Your task to perform on an android device: change keyboard looks Image 0: 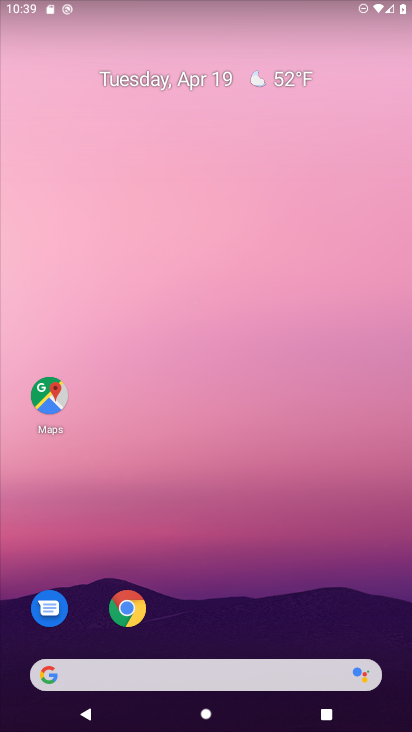
Step 0: drag from (330, 593) to (280, 136)
Your task to perform on an android device: change keyboard looks Image 1: 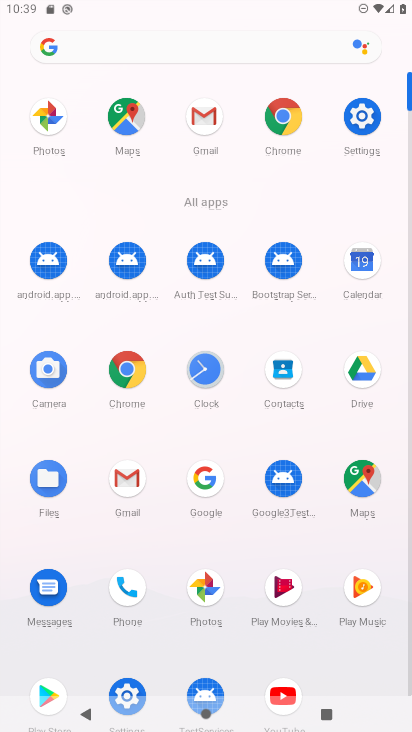
Step 1: click (360, 116)
Your task to perform on an android device: change keyboard looks Image 2: 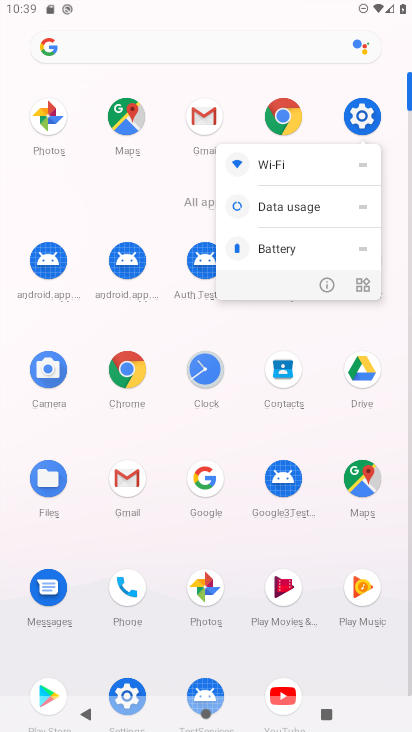
Step 2: click (362, 118)
Your task to perform on an android device: change keyboard looks Image 3: 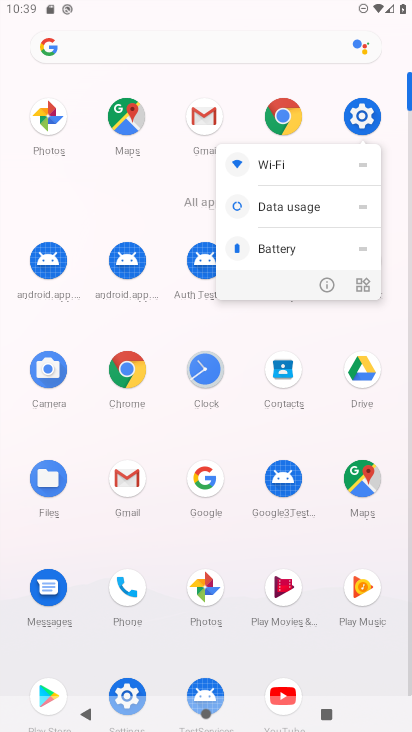
Step 3: click (362, 118)
Your task to perform on an android device: change keyboard looks Image 4: 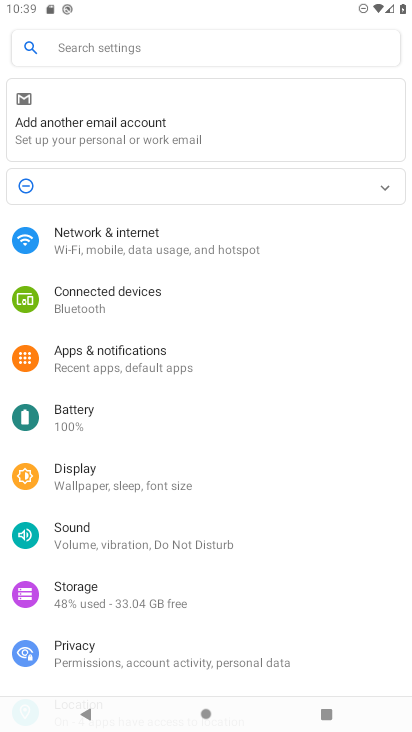
Step 4: drag from (319, 624) to (268, 272)
Your task to perform on an android device: change keyboard looks Image 5: 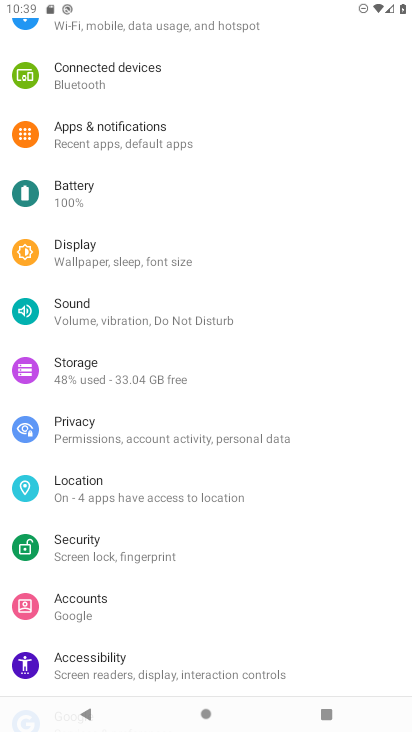
Step 5: drag from (325, 524) to (321, 181)
Your task to perform on an android device: change keyboard looks Image 6: 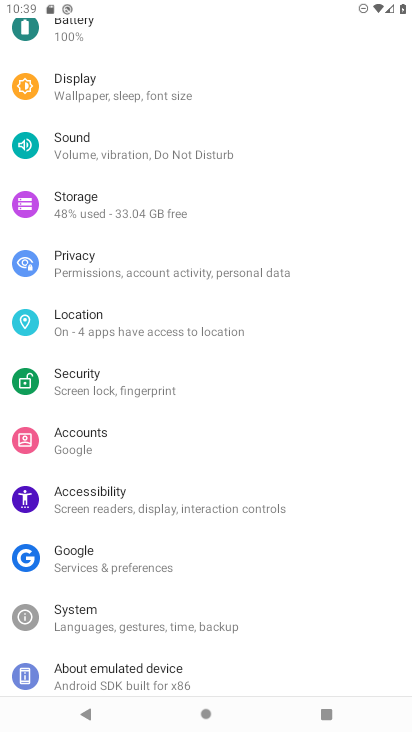
Step 6: click (197, 610)
Your task to perform on an android device: change keyboard looks Image 7: 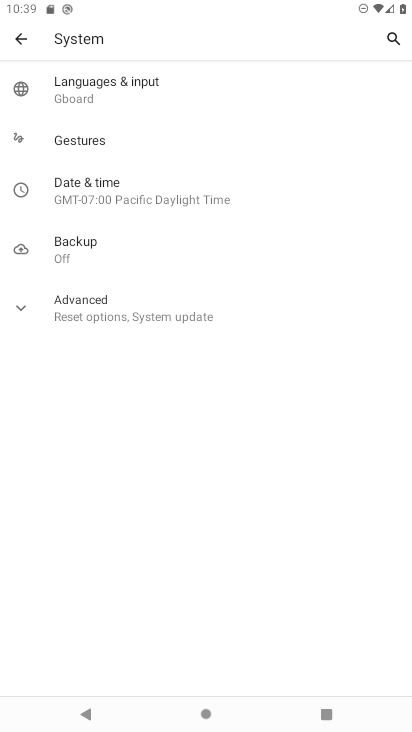
Step 7: click (79, 91)
Your task to perform on an android device: change keyboard looks Image 8: 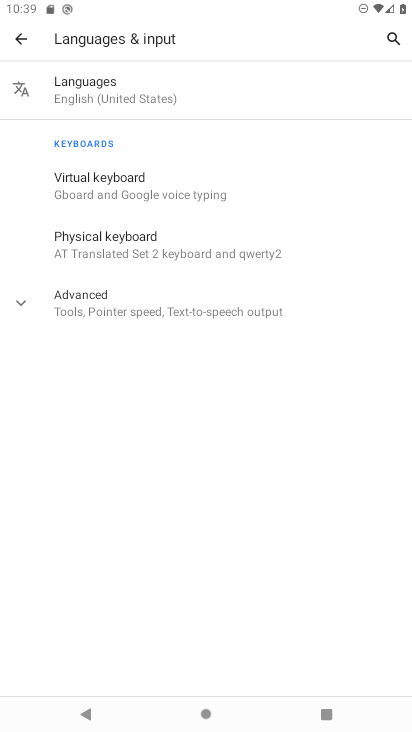
Step 8: click (155, 185)
Your task to perform on an android device: change keyboard looks Image 9: 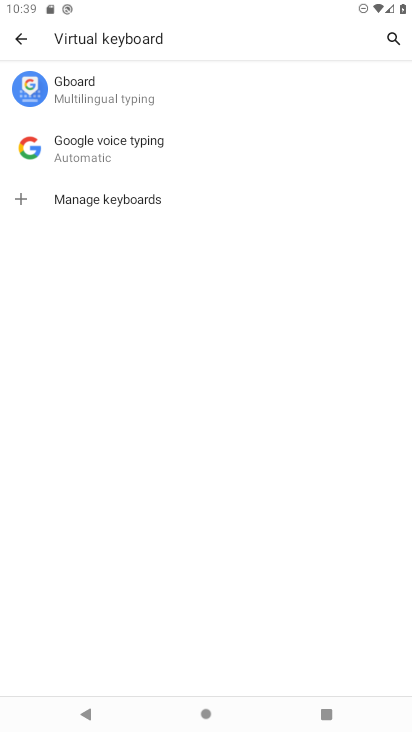
Step 9: click (80, 89)
Your task to perform on an android device: change keyboard looks Image 10: 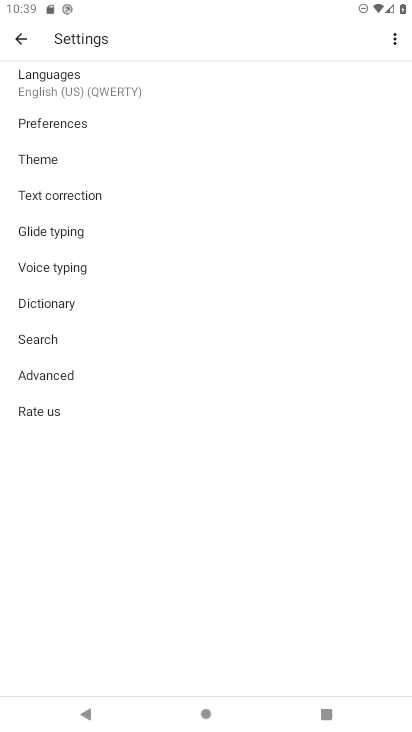
Step 10: click (15, 155)
Your task to perform on an android device: change keyboard looks Image 11: 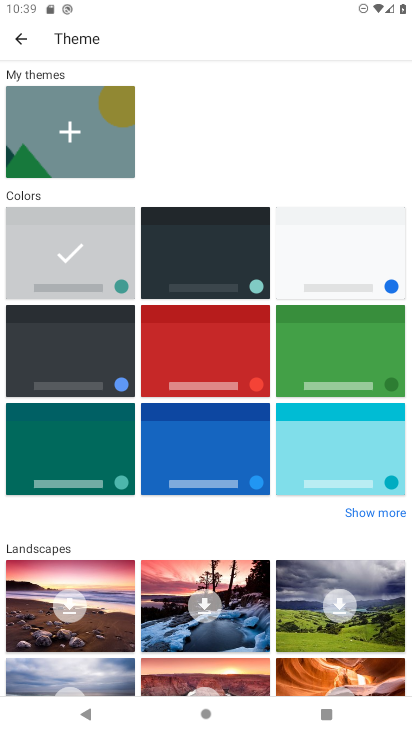
Step 11: click (205, 268)
Your task to perform on an android device: change keyboard looks Image 12: 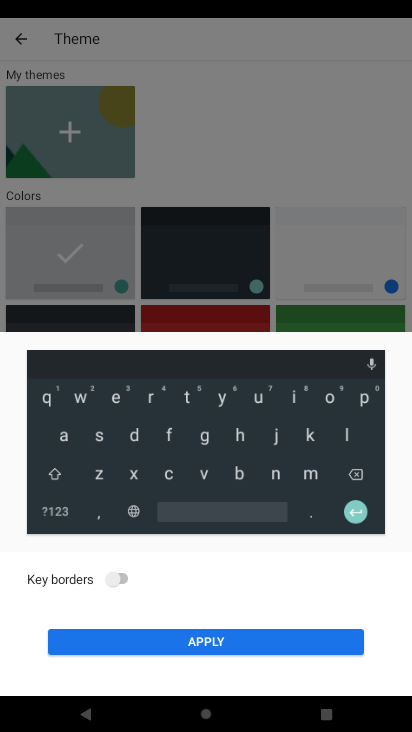
Step 12: click (217, 646)
Your task to perform on an android device: change keyboard looks Image 13: 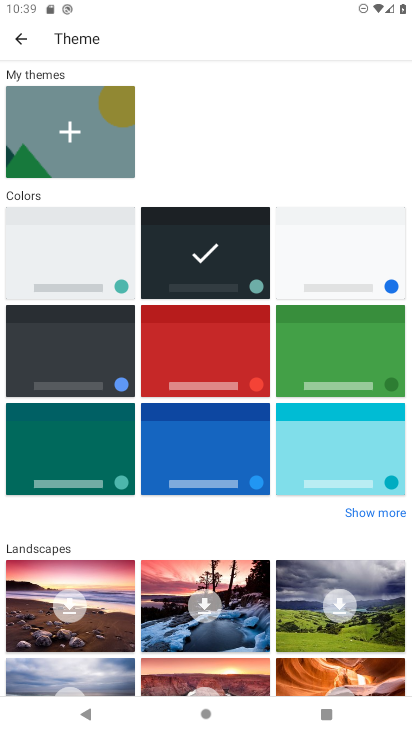
Step 13: task complete